Your task to perform on an android device: star an email in the gmail app Image 0: 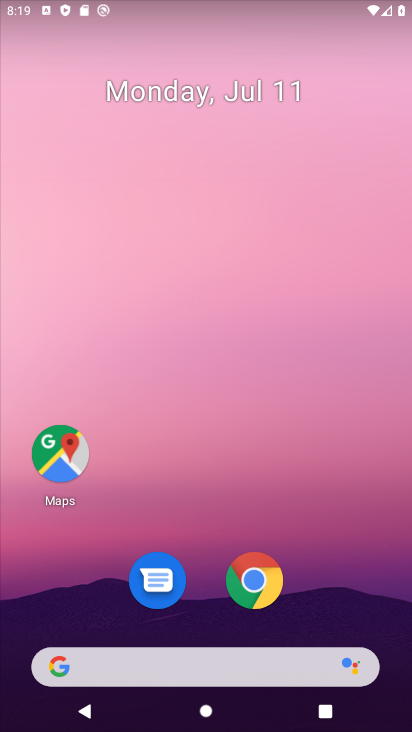
Step 0: drag from (384, 615) to (207, 11)
Your task to perform on an android device: star an email in the gmail app Image 1: 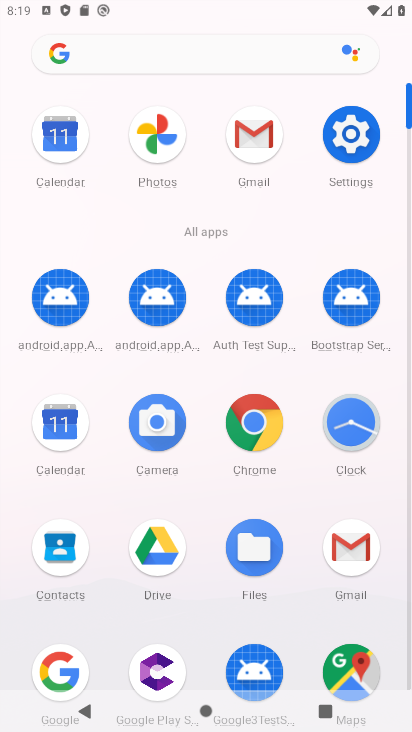
Step 1: click (342, 567)
Your task to perform on an android device: star an email in the gmail app Image 2: 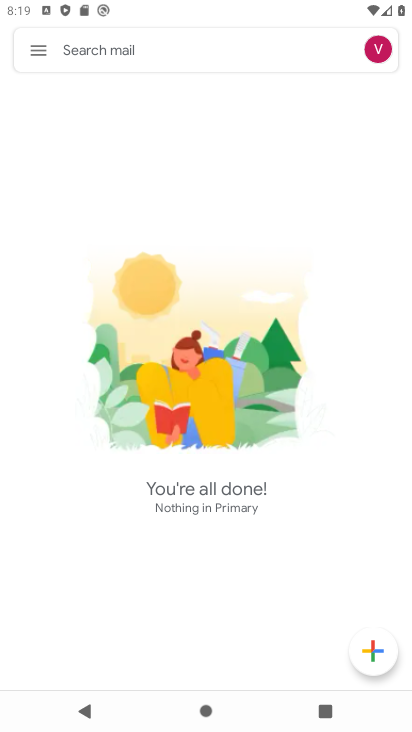
Step 2: task complete